Your task to perform on an android device: install app "Expedia: Hotels, Flights & Car" Image 0: 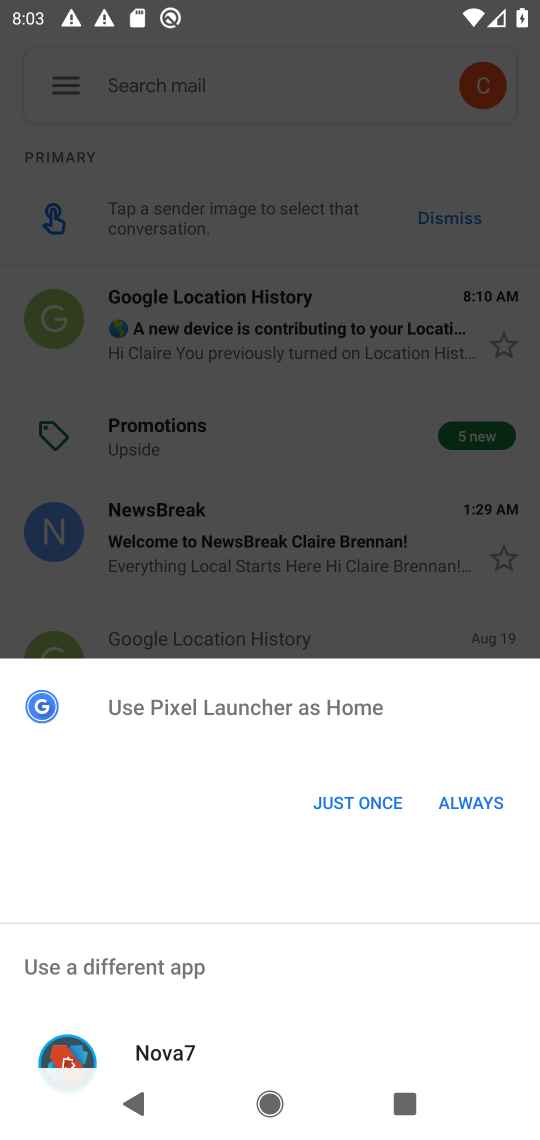
Step 0: click (348, 774)
Your task to perform on an android device: install app "Expedia: Hotels, Flights & Car" Image 1: 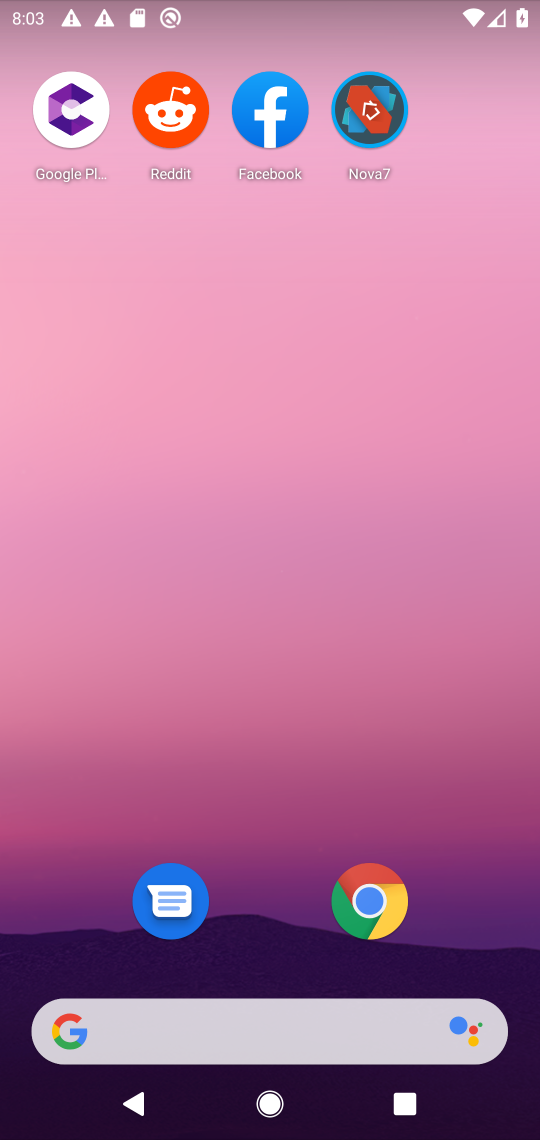
Step 1: drag from (348, 941) to (129, 3)
Your task to perform on an android device: install app "Expedia: Hotels, Flights & Car" Image 2: 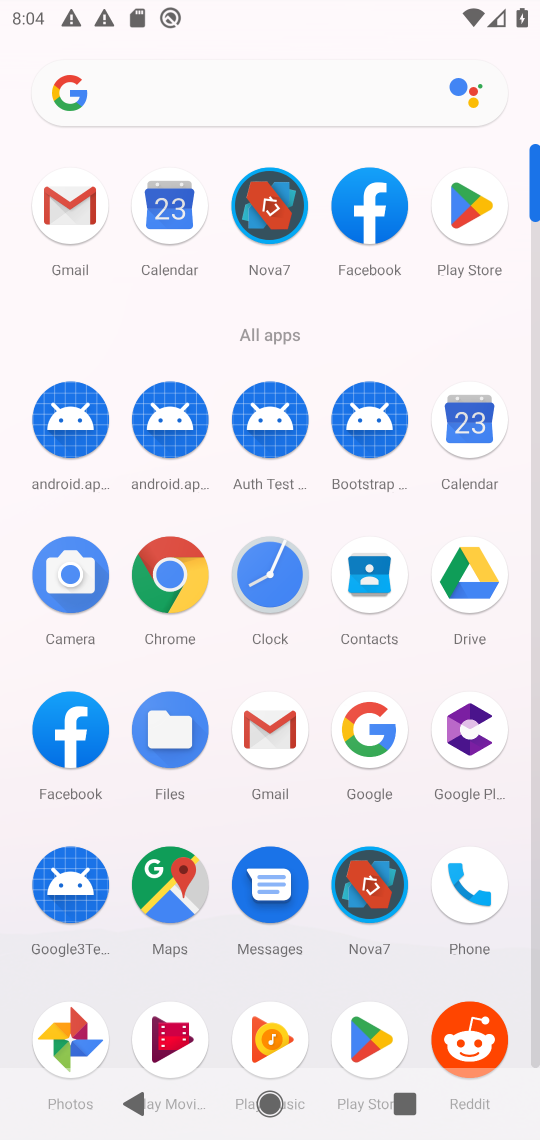
Step 2: click (453, 219)
Your task to perform on an android device: install app "Expedia: Hotels, Flights & Car" Image 3: 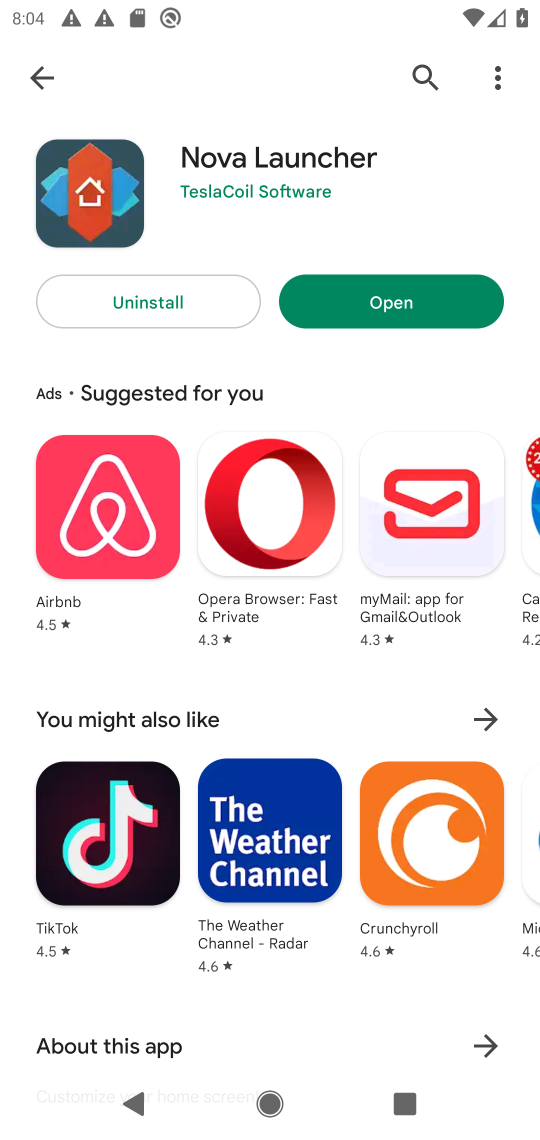
Step 3: press back button
Your task to perform on an android device: install app "Expedia: Hotels, Flights & Car" Image 4: 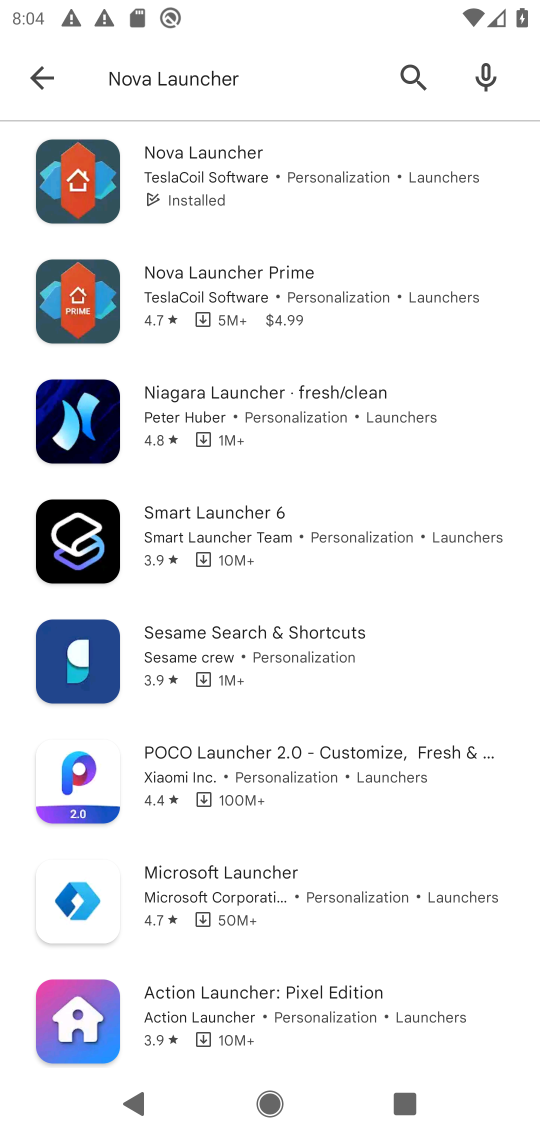
Step 4: press back button
Your task to perform on an android device: install app "Expedia: Hotels, Flights & Car" Image 5: 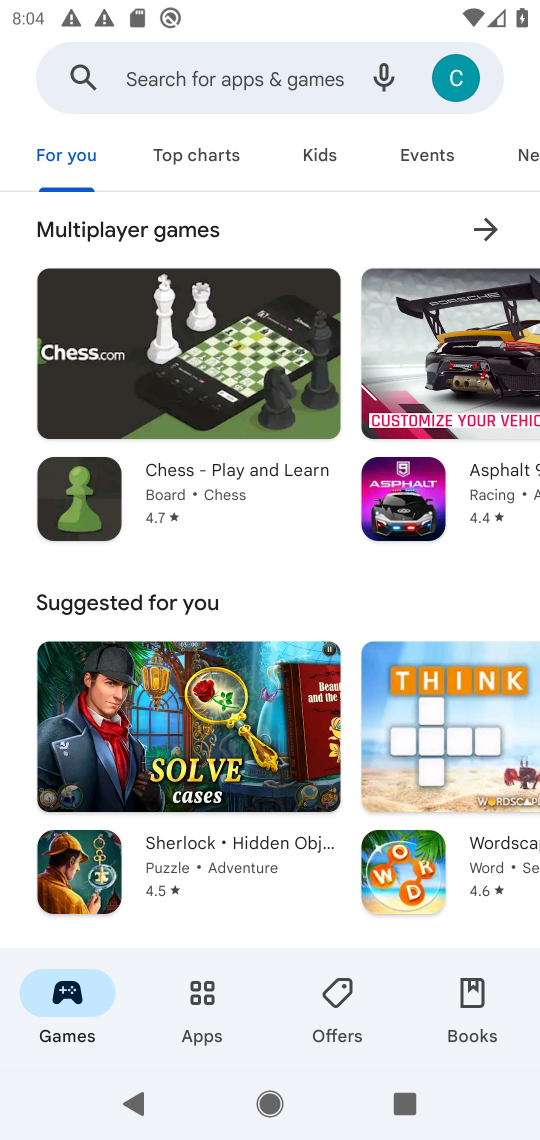
Step 5: click (171, 76)
Your task to perform on an android device: install app "Expedia: Hotels, Flights & Car" Image 6: 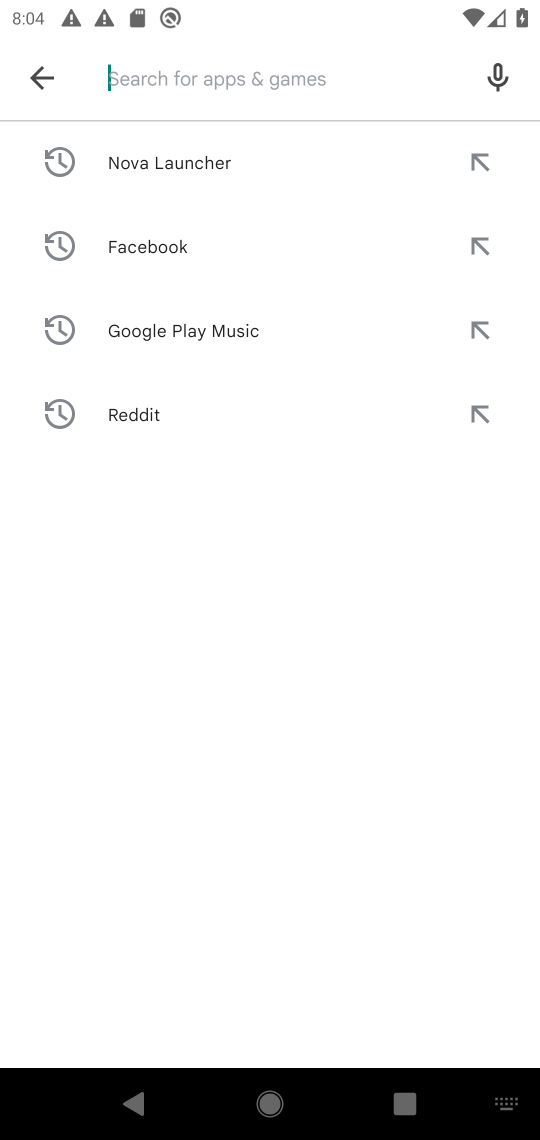
Step 6: type "Expedia: Hotels, Flights & Car"
Your task to perform on an android device: install app "Expedia: Hotels, Flights & Car" Image 7: 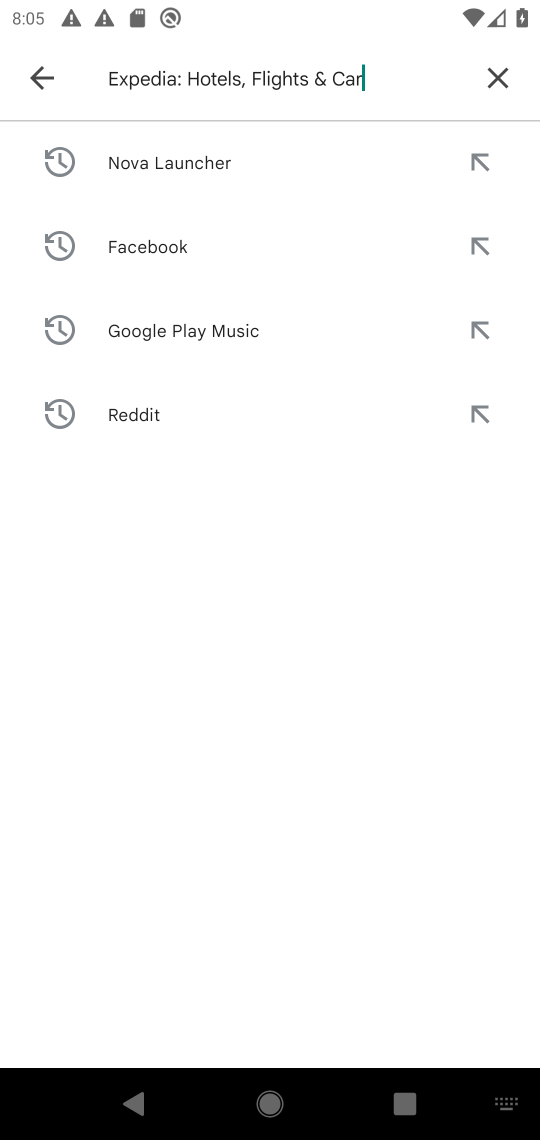
Step 7: press enter
Your task to perform on an android device: install app "Expedia: Hotels, Flights & Car" Image 8: 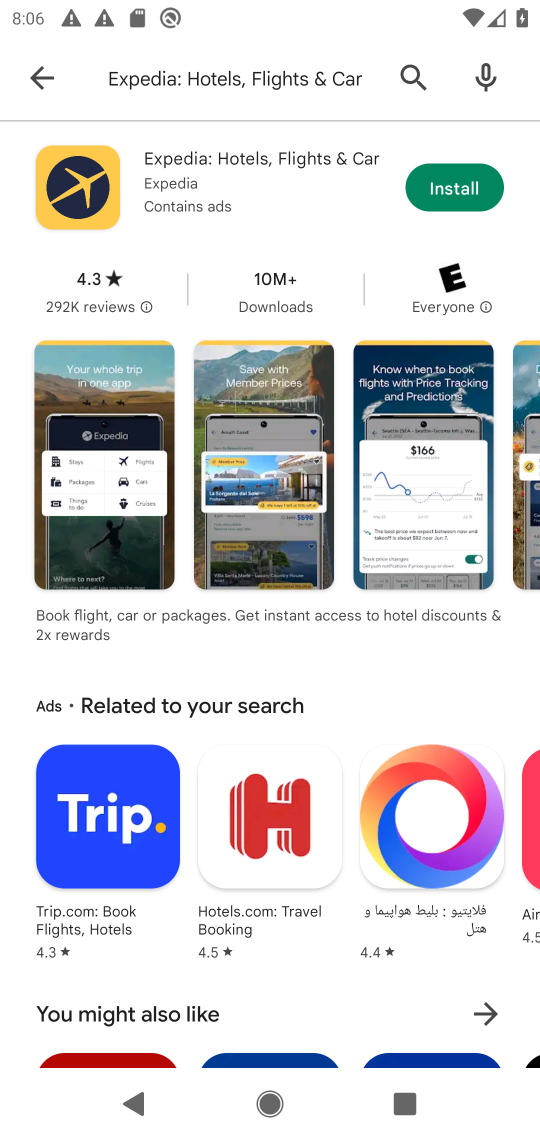
Step 8: click (446, 186)
Your task to perform on an android device: install app "Expedia: Hotels, Flights & Car" Image 9: 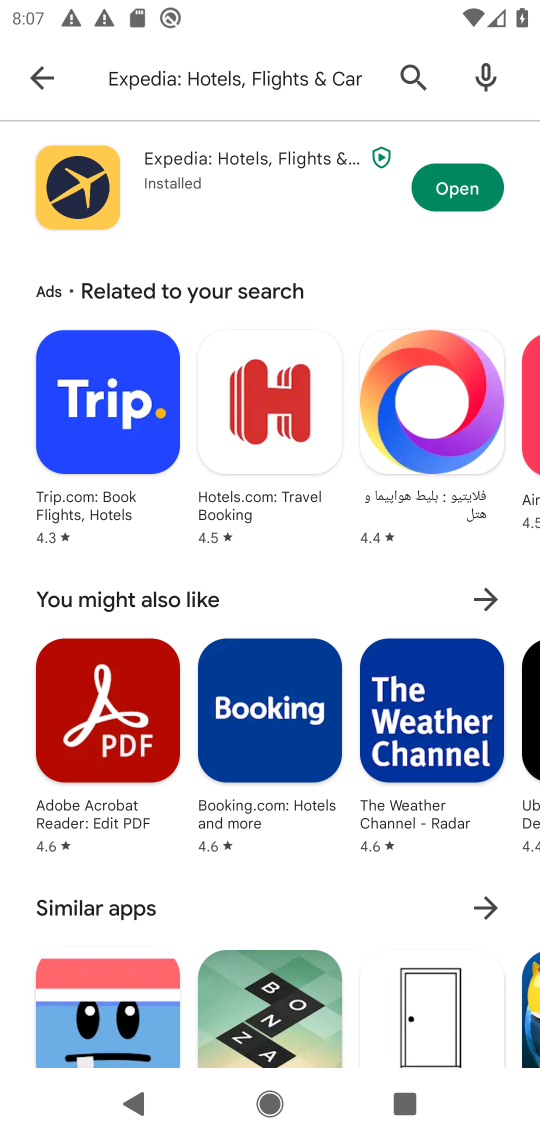
Step 9: click (467, 186)
Your task to perform on an android device: install app "Expedia: Hotels, Flights & Car" Image 10: 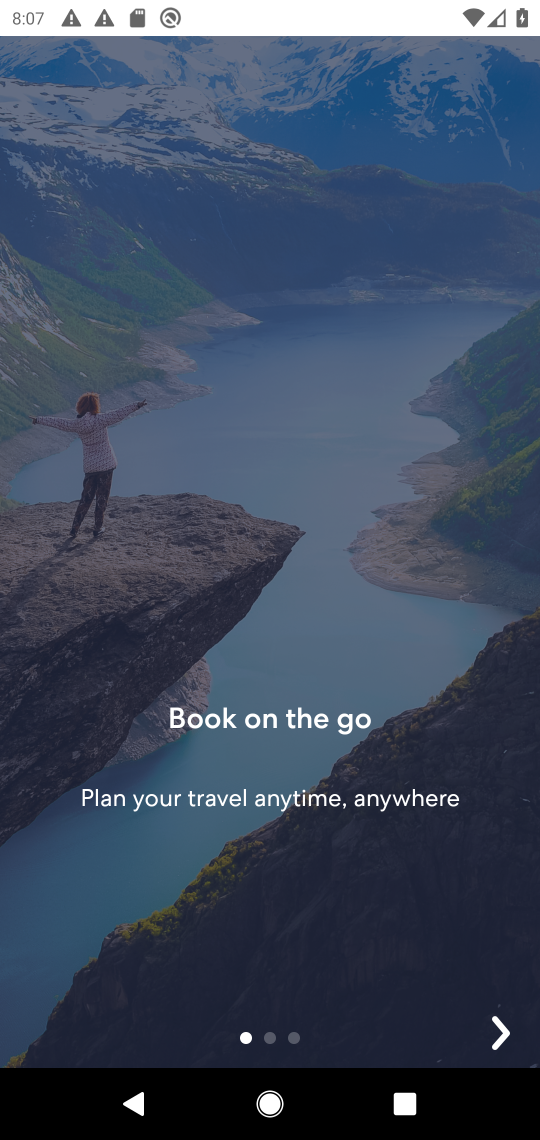
Step 10: task complete